Your task to perform on an android device: allow cookies in the chrome app Image 0: 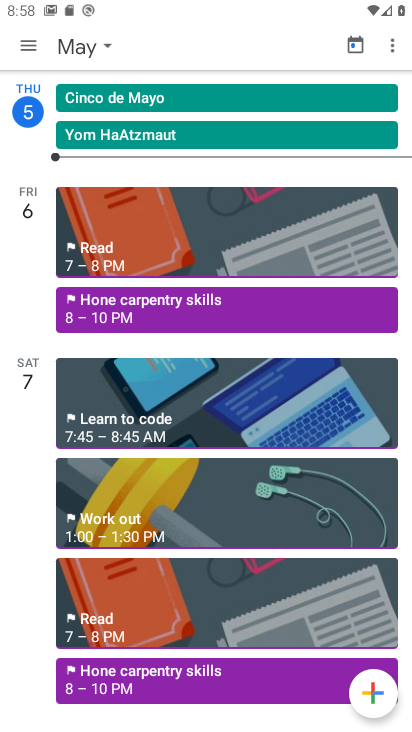
Step 0: press home button
Your task to perform on an android device: allow cookies in the chrome app Image 1: 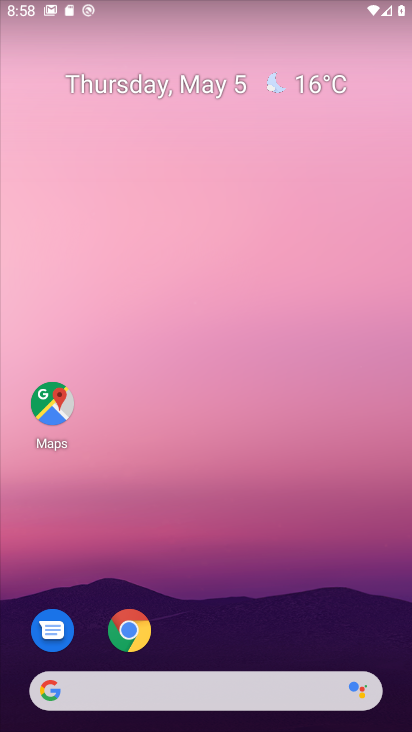
Step 1: drag from (345, 500) to (377, 2)
Your task to perform on an android device: allow cookies in the chrome app Image 2: 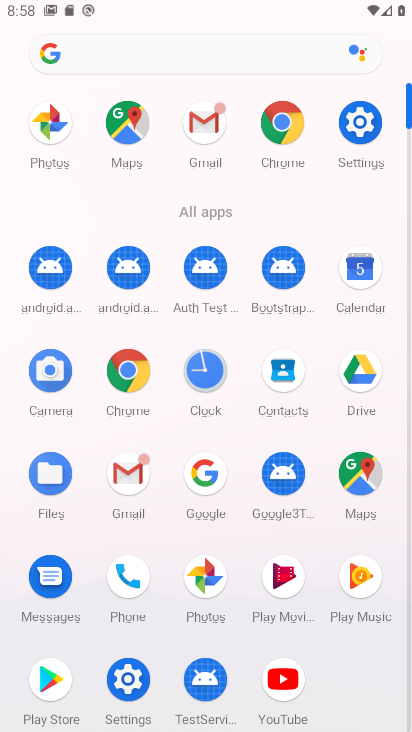
Step 2: click (280, 138)
Your task to perform on an android device: allow cookies in the chrome app Image 3: 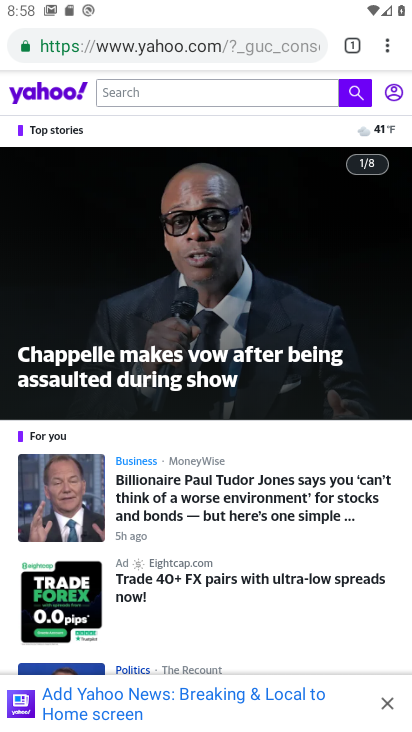
Step 3: drag from (383, 54) to (221, 557)
Your task to perform on an android device: allow cookies in the chrome app Image 4: 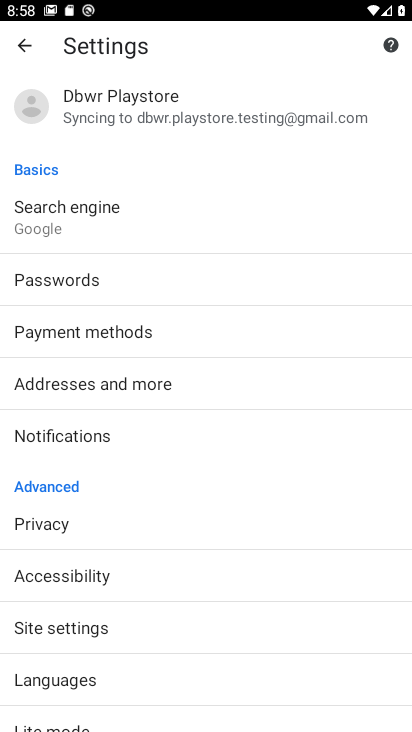
Step 4: drag from (196, 662) to (141, 260)
Your task to perform on an android device: allow cookies in the chrome app Image 5: 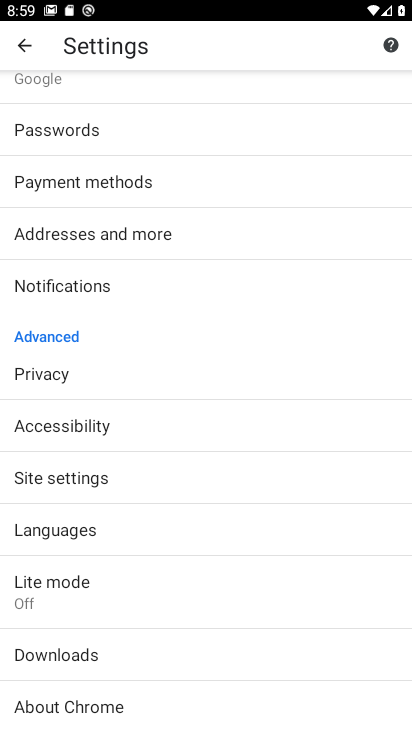
Step 5: click (112, 479)
Your task to perform on an android device: allow cookies in the chrome app Image 6: 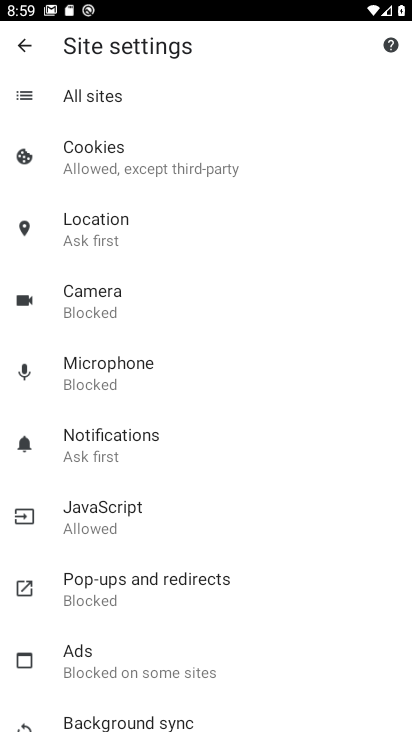
Step 6: click (125, 171)
Your task to perform on an android device: allow cookies in the chrome app Image 7: 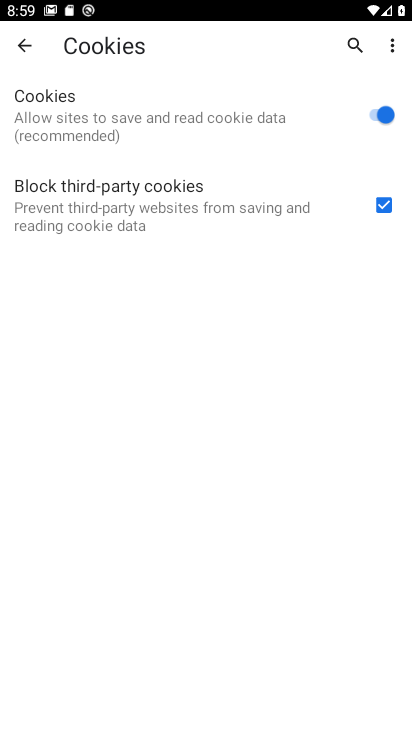
Step 7: task complete